Your task to perform on an android device: make emails show in primary in the gmail app Image 0: 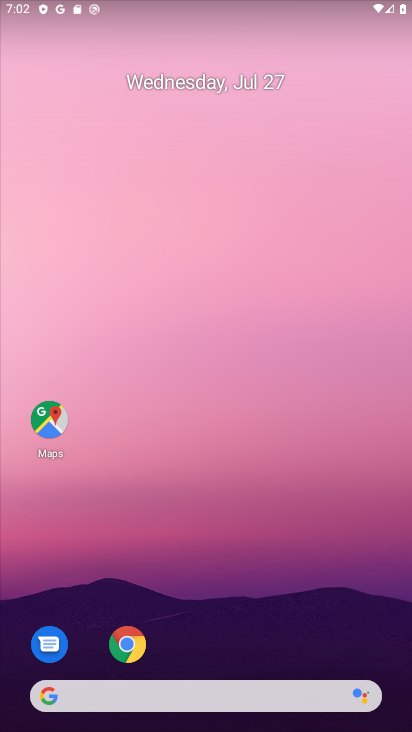
Step 0: drag from (224, 415) to (259, 153)
Your task to perform on an android device: make emails show in primary in the gmail app Image 1: 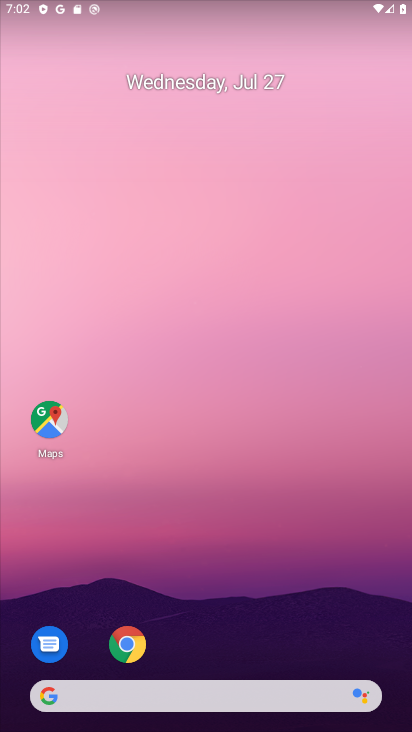
Step 1: drag from (295, 591) to (260, 16)
Your task to perform on an android device: make emails show in primary in the gmail app Image 2: 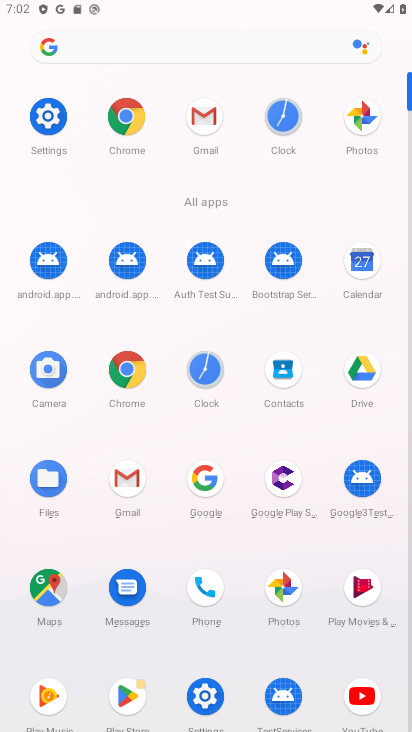
Step 2: click (113, 476)
Your task to perform on an android device: make emails show in primary in the gmail app Image 3: 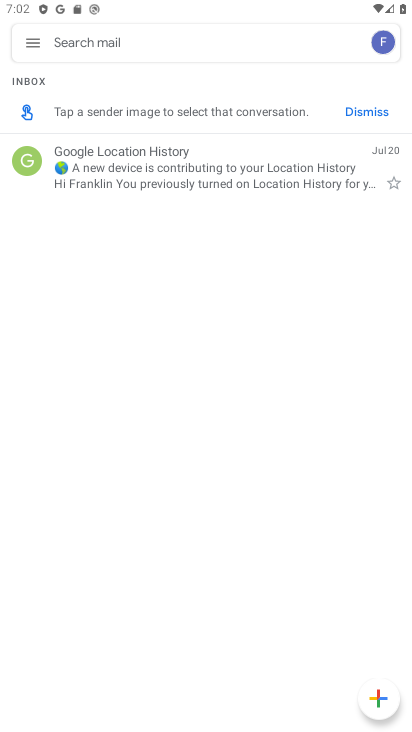
Step 3: task complete